Your task to perform on an android device: Search for hotels in New York Image 0: 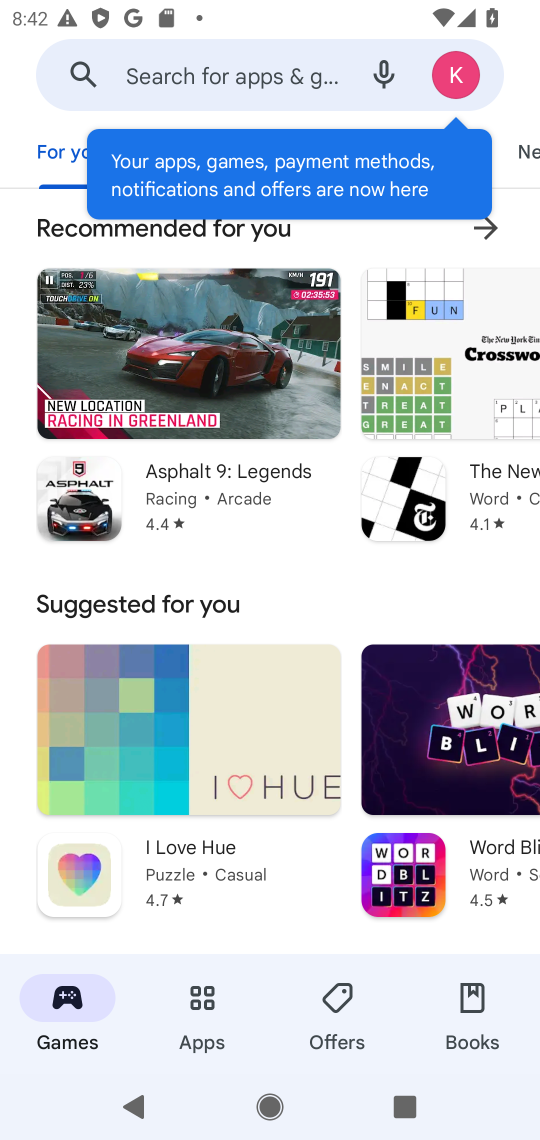
Step 0: press home button
Your task to perform on an android device: Search for hotels in New York Image 1: 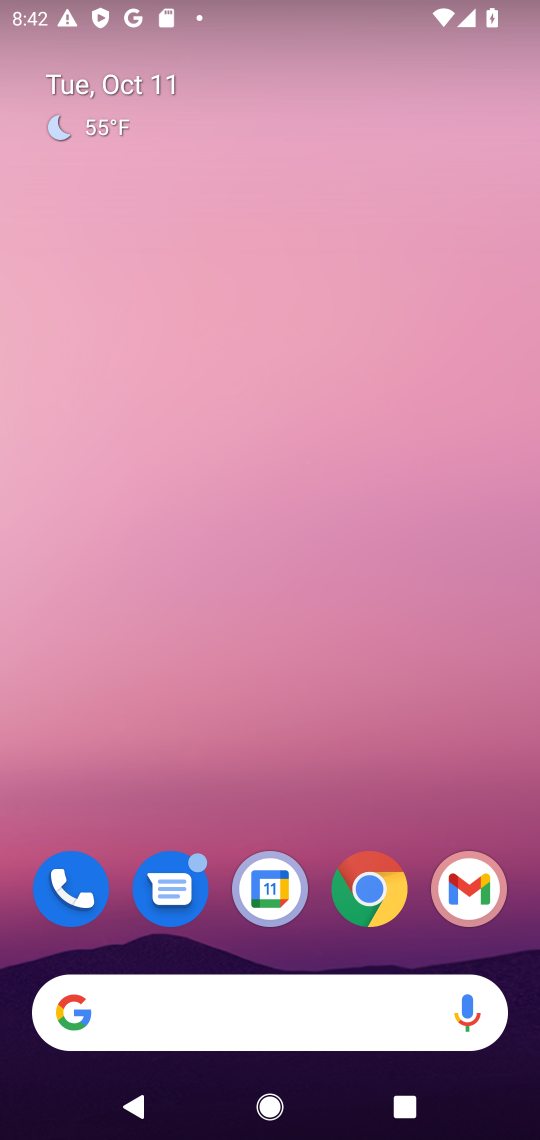
Step 1: click (224, 1034)
Your task to perform on an android device: Search for hotels in New York Image 2: 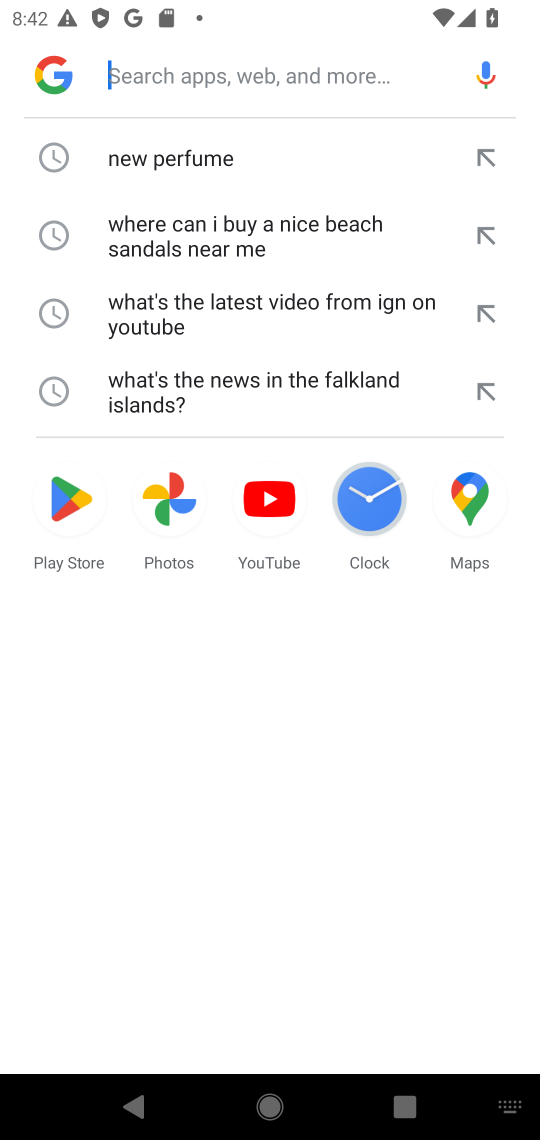
Step 2: type "hotels in New York"
Your task to perform on an android device: Search for hotels in New York Image 3: 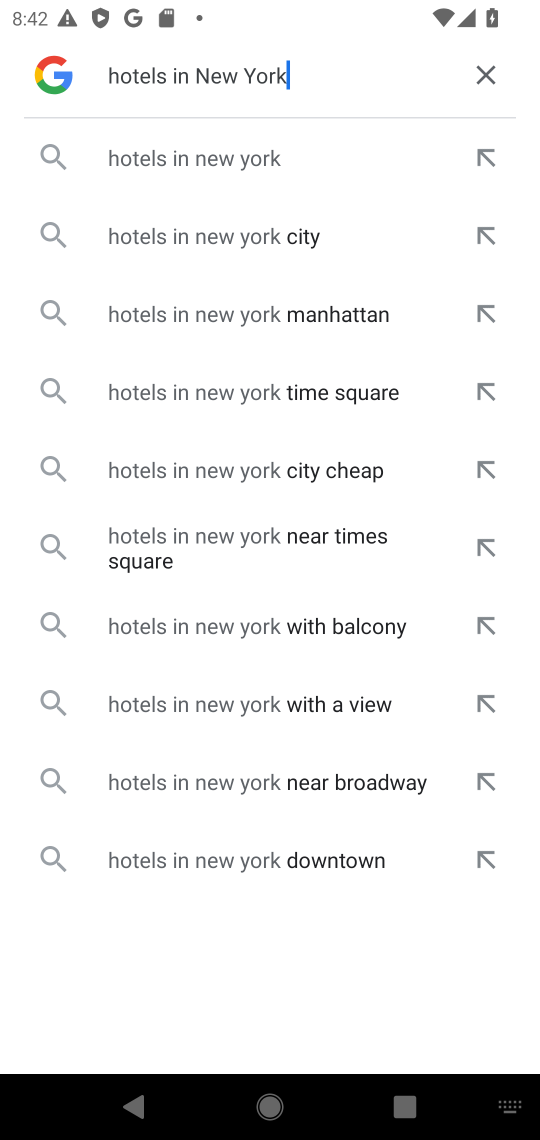
Step 3: click (219, 168)
Your task to perform on an android device: Search for hotels in New York Image 4: 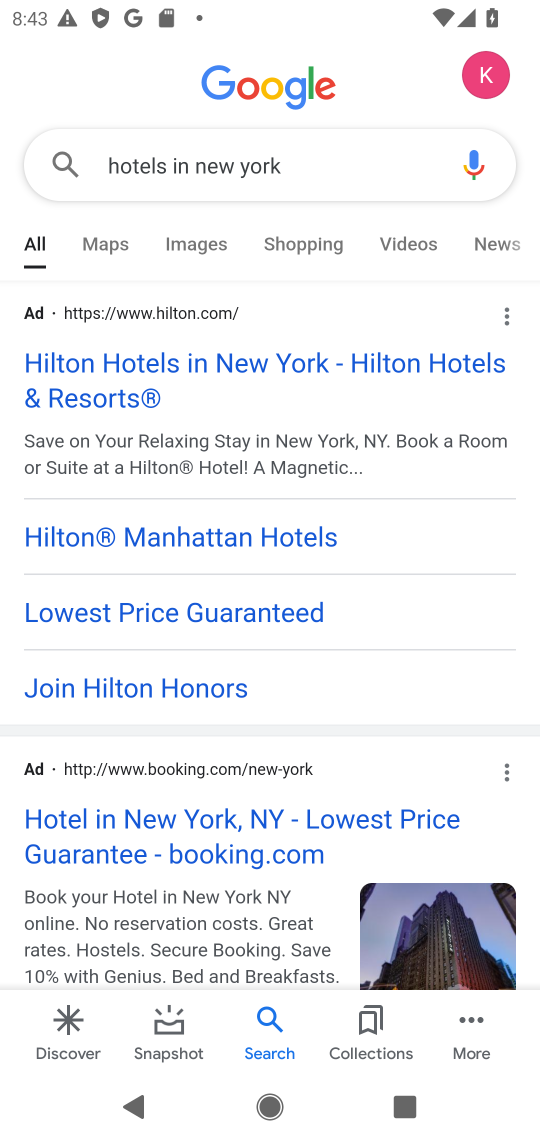
Step 4: task complete